Your task to perform on an android device: see tabs open on other devices in the chrome app Image 0: 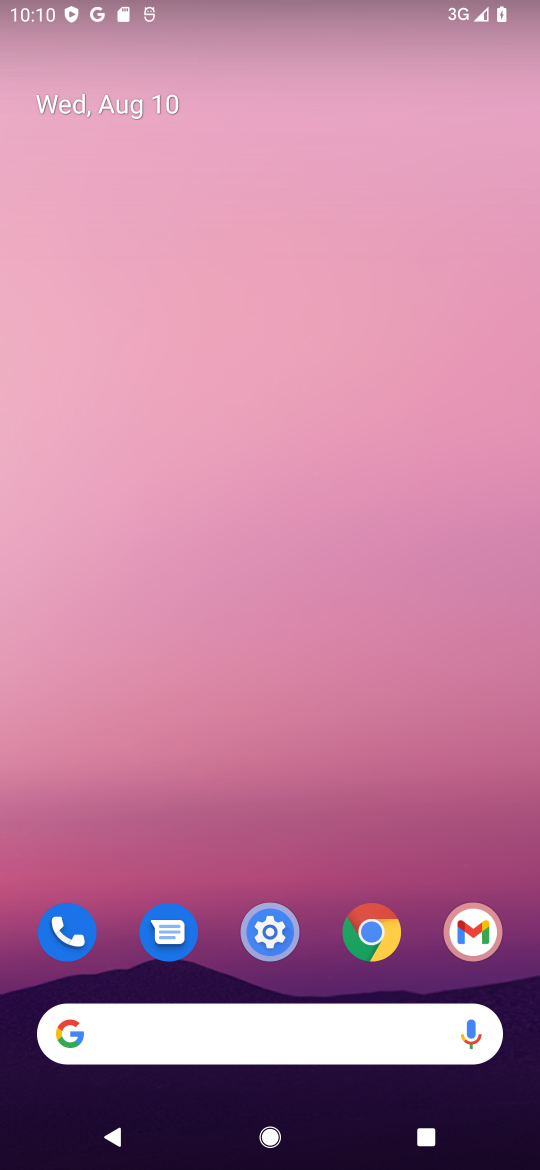
Step 0: click (363, 934)
Your task to perform on an android device: see tabs open on other devices in the chrome app Image 1: 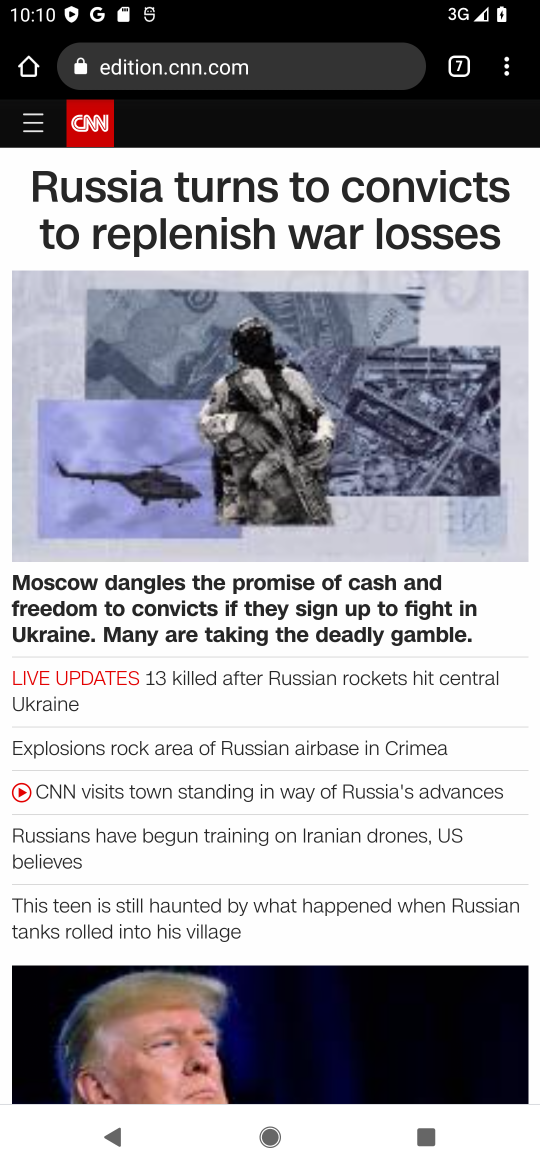
Step 1: click (499, 98)
Your task to perform on an android device: see tabs open on other devices in the chrome app Image 2: 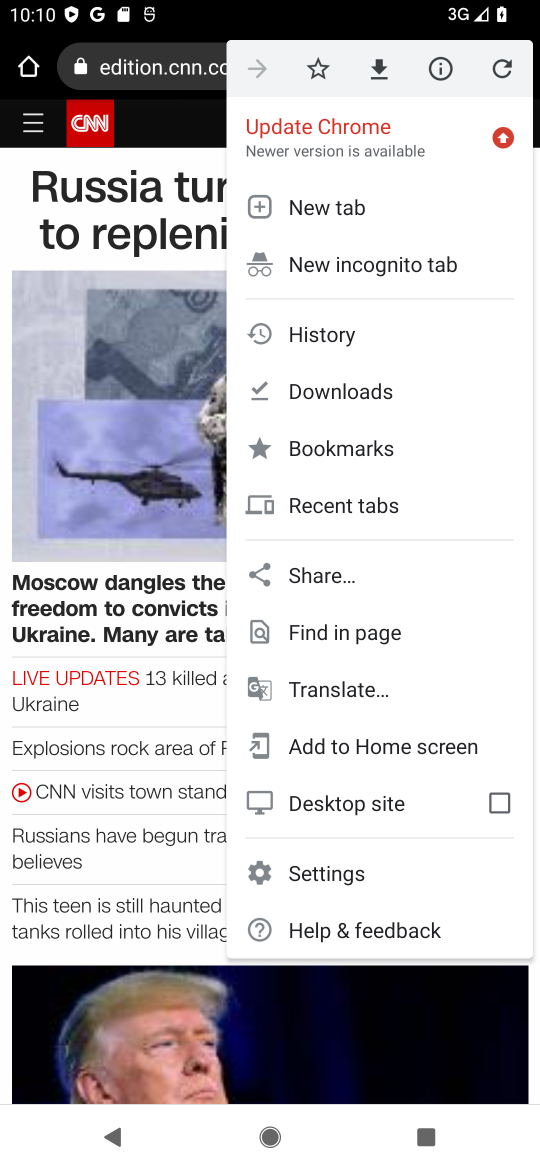
Step 2: click (333, 507)
Your task to perform on an android device: see tabs open on other devices in the chrome app Image 3: 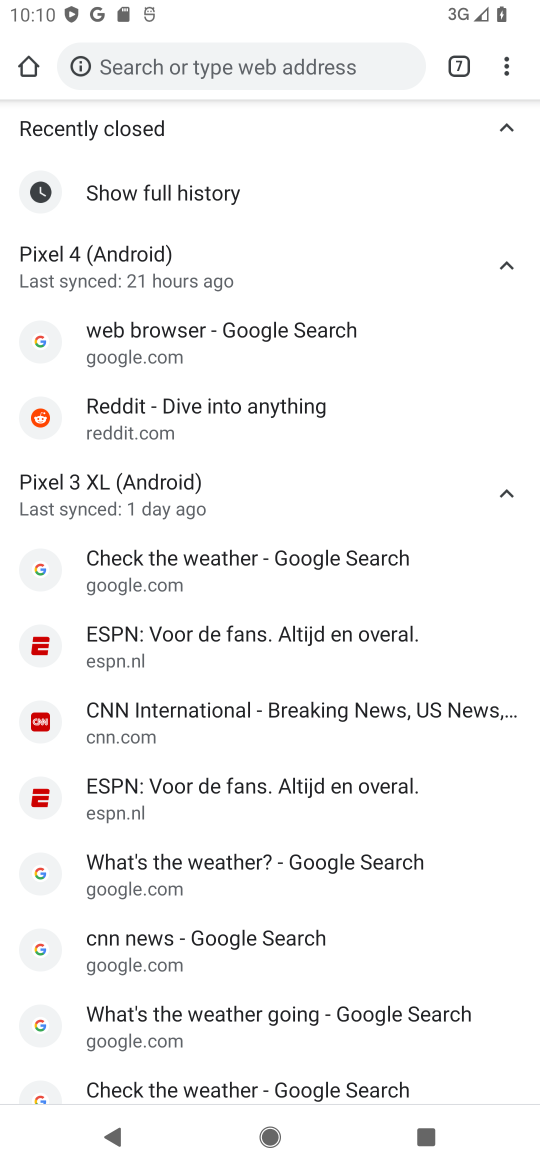
Step 3: task complete